Your task to perform on an android device: open chrome and create a bookmark for the current page Image 0: 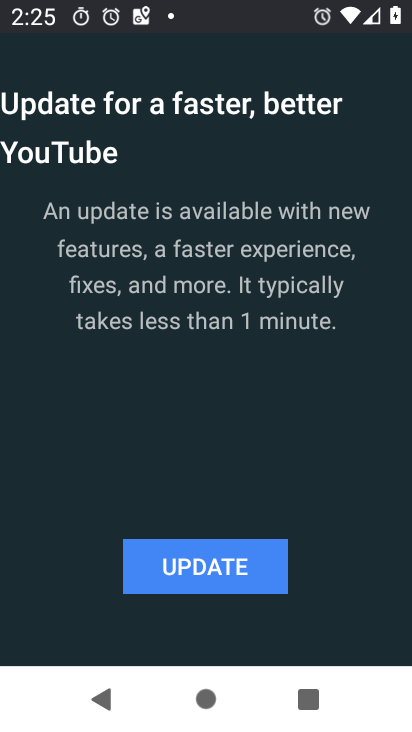
Step 0: press home button
Your task to perform on an android device: open chrome and create a bookmark for the current page Image 1: 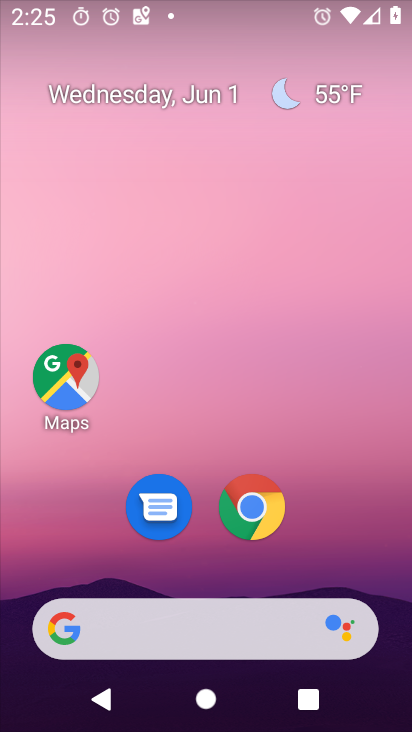
Step 1: click (253, 507)
Your task to perform on an android device: open chrome and create a bookmark for the current page Image 2: 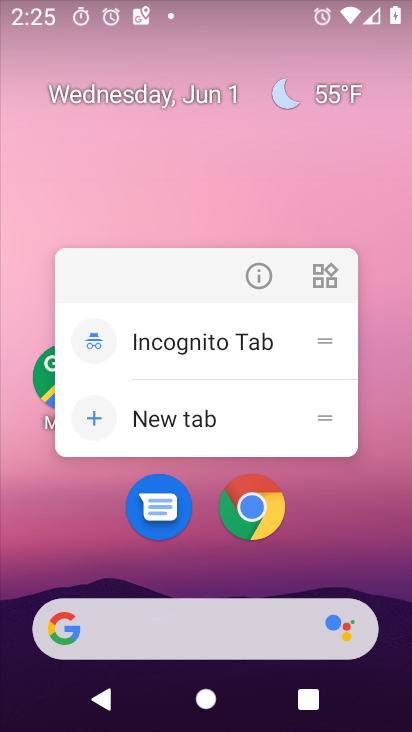
Step 2: click (253, 507)
Your task to perform on an android device: open chrome and create a bookmark for the current page Image 3: 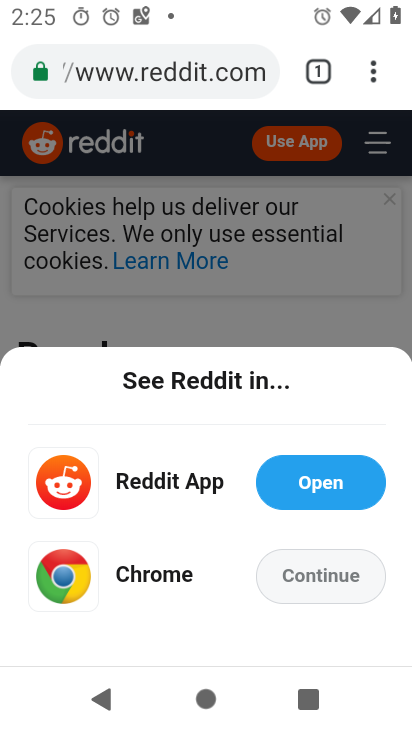
Step 3: click (371, 70)
Your task to perform on an android device: open chrome and create a bookmark for the current page Image 4: 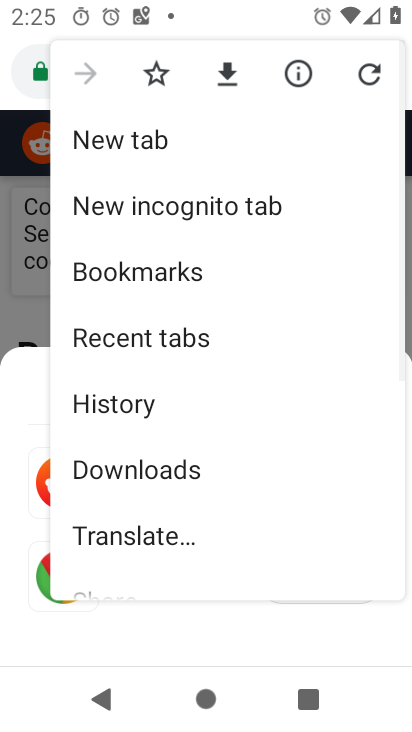
Step 4: click (146, 76)
Your task to perform on an android device: open chrome and create a bookmark for the current page Image 5: 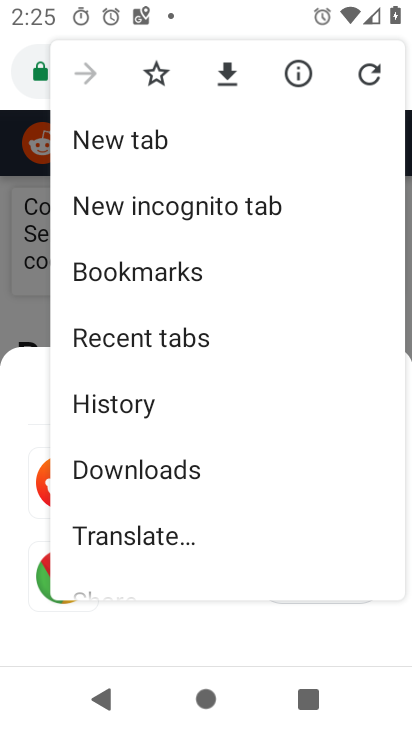
Step 5: click (159, 70)
Your task to perform on an android device: open chrome and create a bookmark for the current page Image 6: 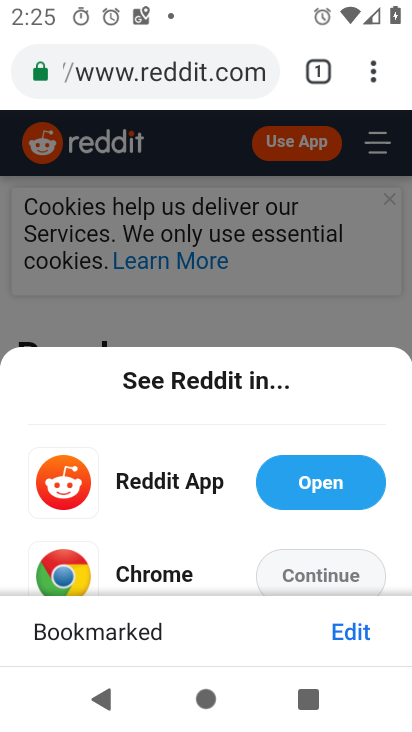
Step 6: task complete